Your task to perform on an android device: What's the weather today? Image 0: 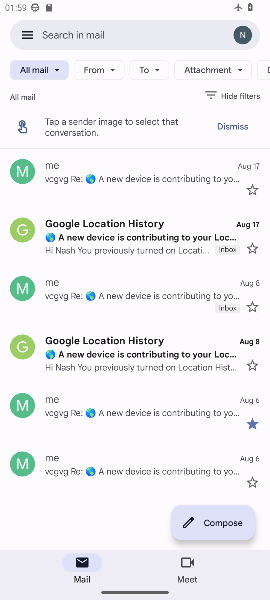
Step 0: press home button
Your task to perform on an android device: What's the weather today? Image 1: 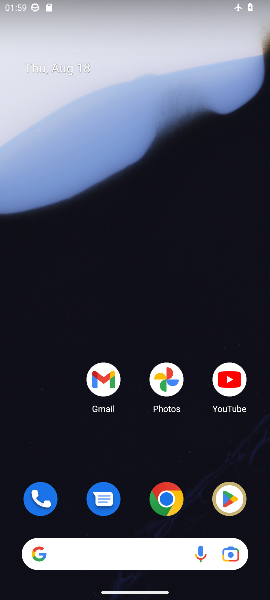
Step 1: drag from (86, 442) to (106, 25)
Your task to perform on an android device: What's the weather today? Image 2: 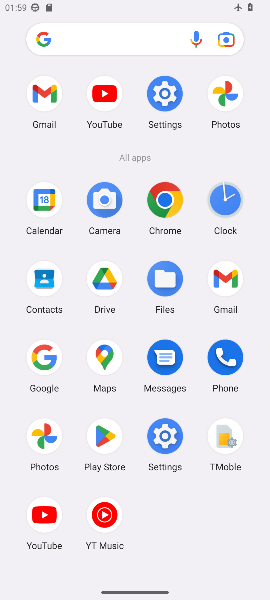
Step 2: click (41, 355)
Your task to perform on an android device: What's the weather today? Image 3: 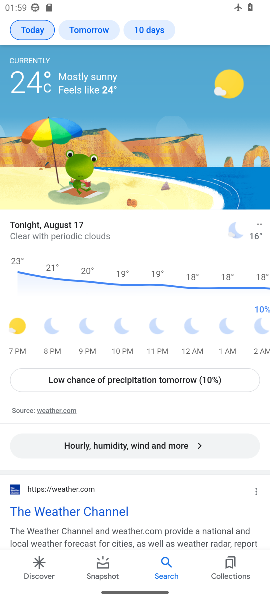
Step 3: task complete